Your task to perform on an android device: Open the phone app and click the voicemail tab. Image 0: 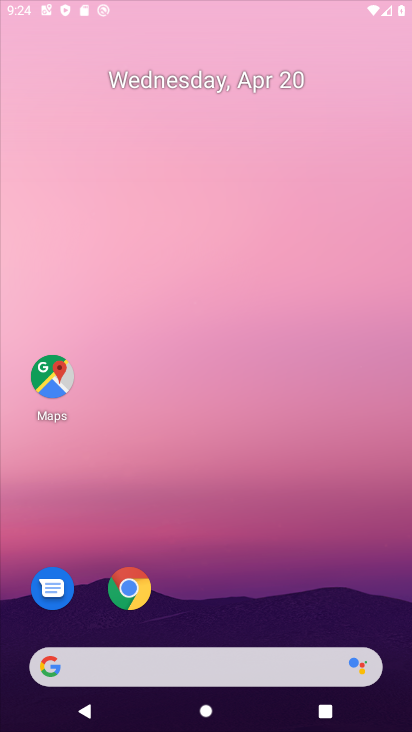
Step 0: drag from (234, 433) to (349, 232)
Your task to perform on an android device: Open the phone app and click the voicemail tab. Image 1: 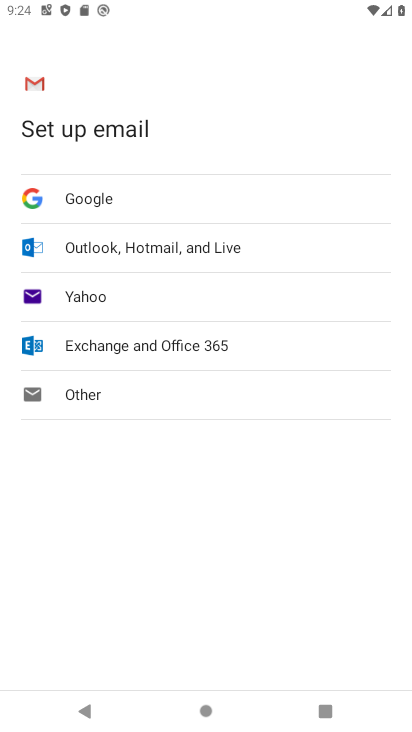
Step 1: press home button
Your task to perform on an android device: Open the phone app and click the voicemail tab. Image 2: 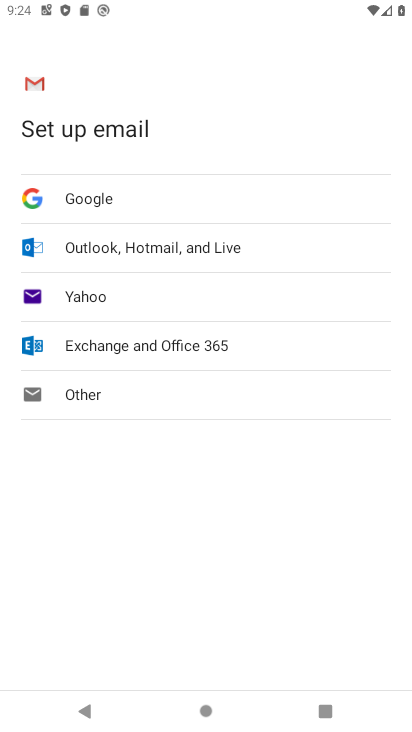
Step 2: drag from (349, 232) to (398, 559)
Your task to perform on an android device: Open the phone app and click the voicemail tab. Image 3: 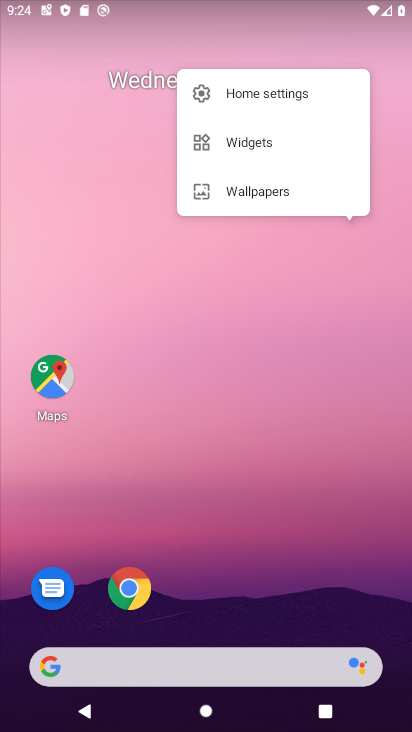
Step 3: drag from (258, 612) to (162, 210)
Your task to perform on an android device: Open the phone app and click the voicemail tab. Image 4: 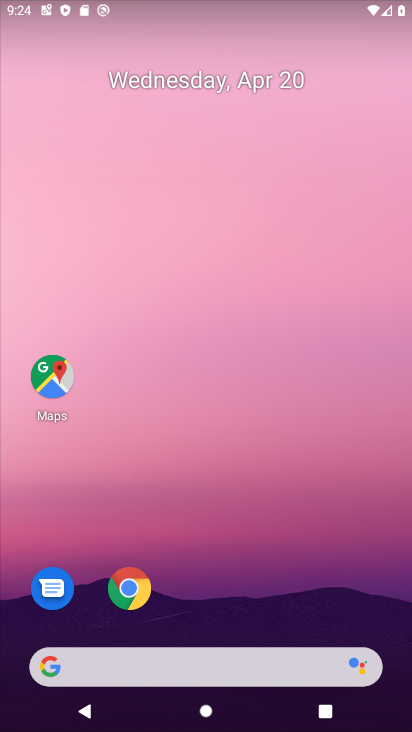
Step 4: drag from (300, 585) to (177, 147)
Your task to perform on an android device: Open the phone app and click the voicemail tab. Image 5: 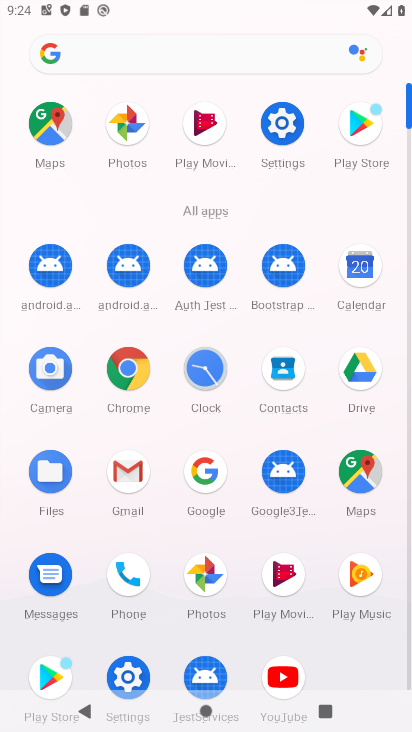
Step 5: click (127, 573)
Your task to perform on an android device: Open the phone app and click the voicemail tab. Image 6: 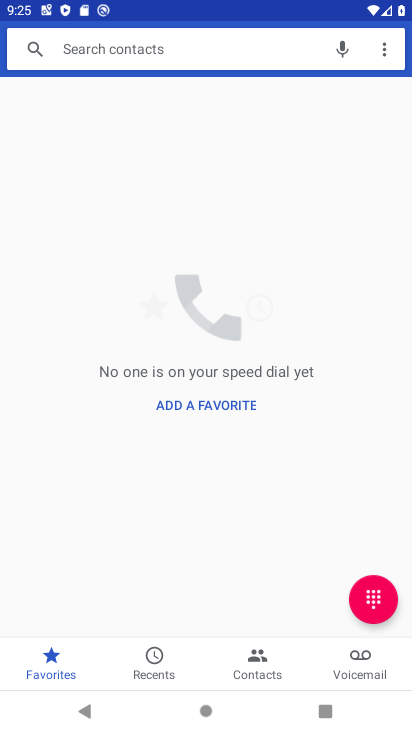
Step 6: click (353, 650)
Your task to perform on an android device: Open the phone app and click the voicemail tab. Image 7: 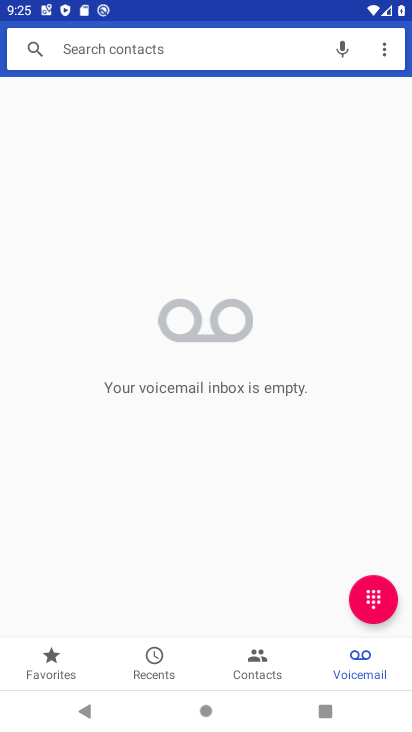
Step 7: task complete